Your task to perform on an android device: open app "Spotify: Music and Podcasts" (install if not already installed), go to login, and select forgot password Image 0: 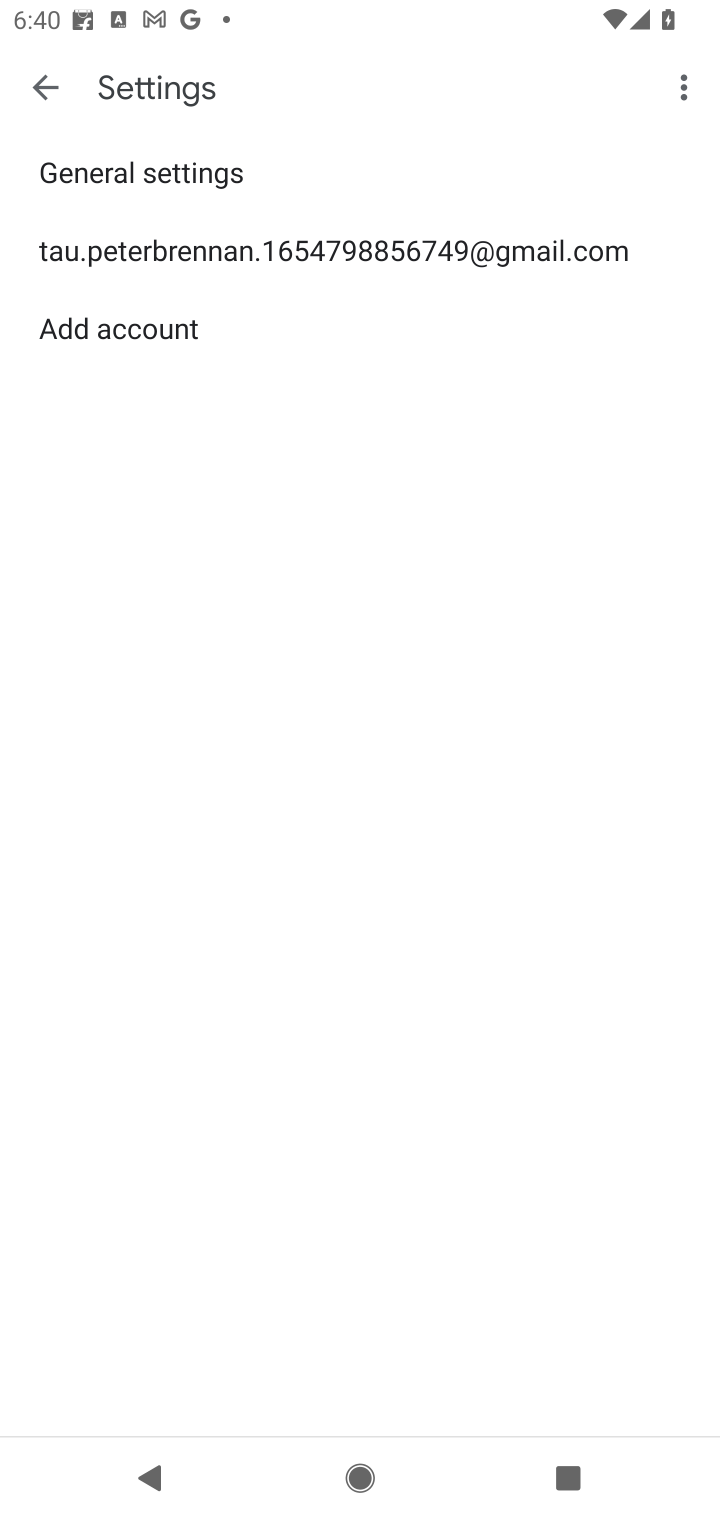
Step 0: press home button
Your task to perform on an android device: open app "Spotify: Music and Podcasts" (install if not already installed), go to login, and select forgot password Image 1: 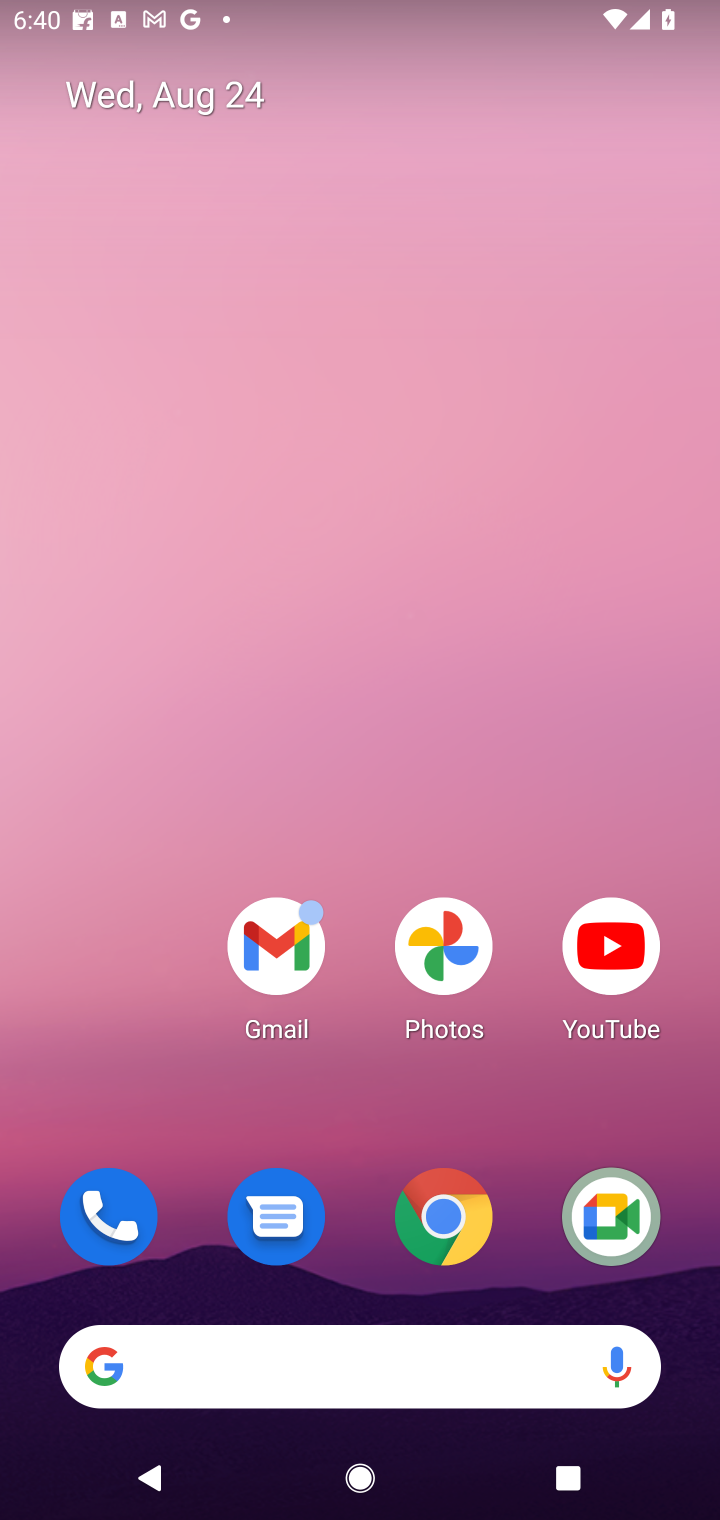
Step 1: drag from (488, 1118) to (535, 194)
Your task to perform on an android device: open app "Spotify: Music and Podcasts" (install if not already installed), go to login, and select forgot password Image 2: 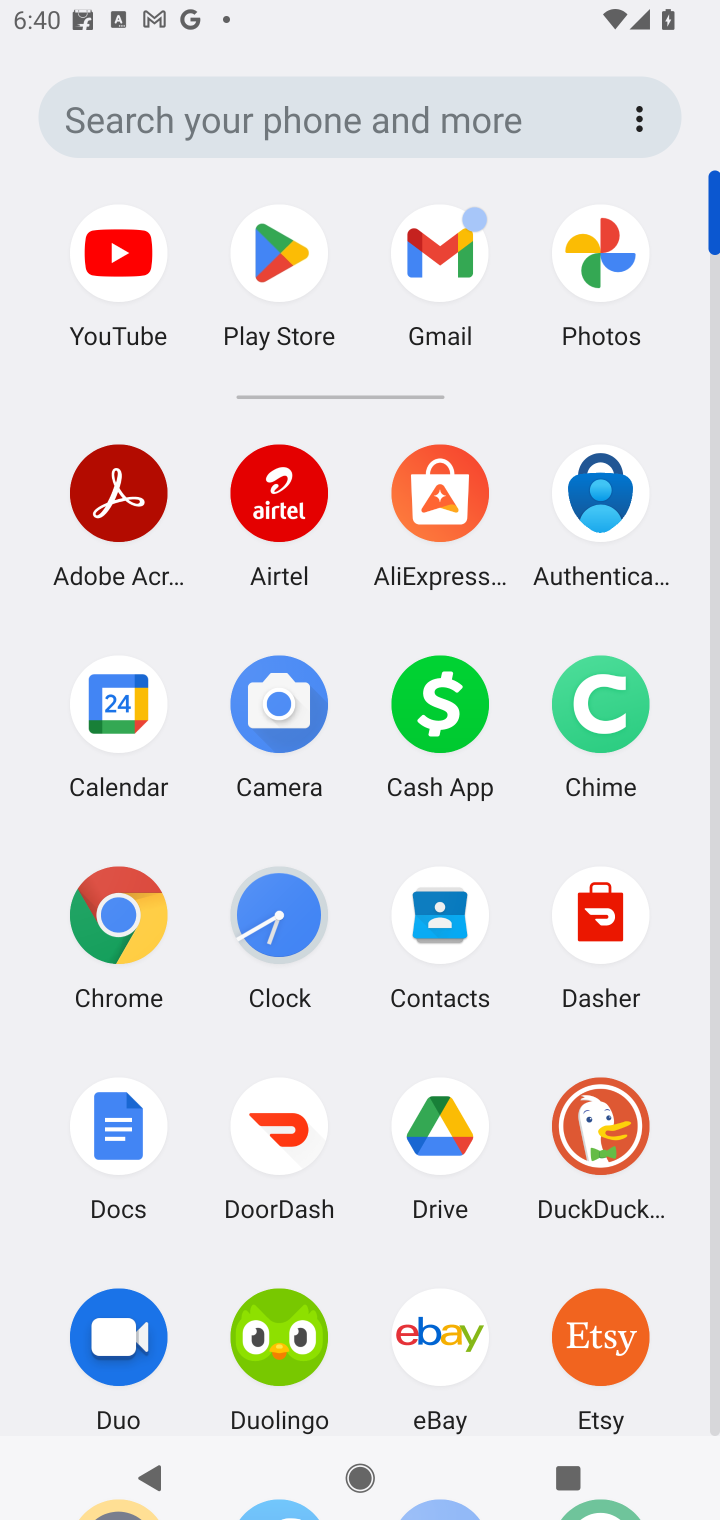
Step 2: click (258, 248)
Your task to perform on an android device: open app "Spotify: Music and Podcasts" (install if not already installed), go to login, and select forgot password Image 3: 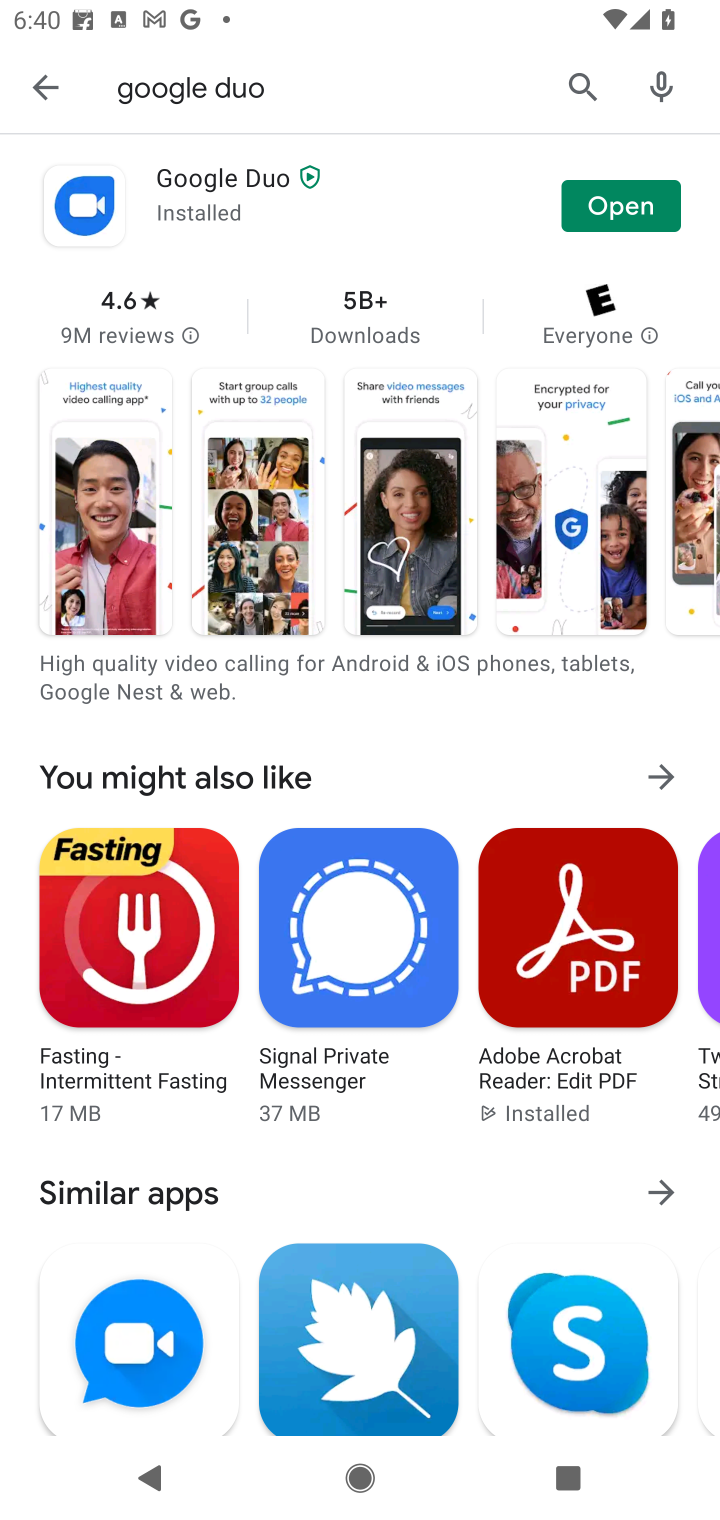
Step 3: click (565, 92)
Your task to perform on an android device: open app "Spotify: Music and Podcasts" (install if not already installed), go to login, and select forgot password Image 4: 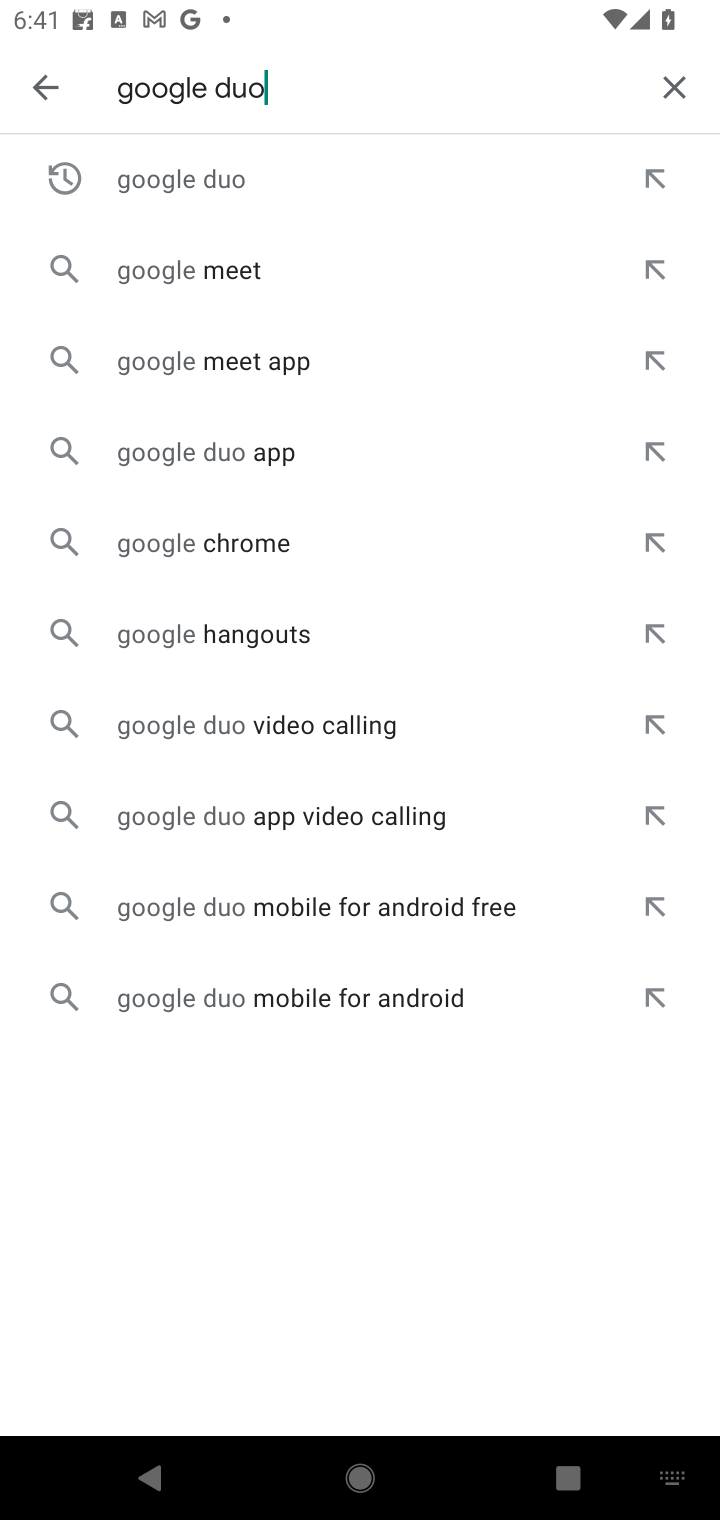
Step 4: click (665, 90)
Your task to perform on an android device: open app "Spotify: Music and Podcasts" (install if not already installed), go to login, and select forgot password Image 5: 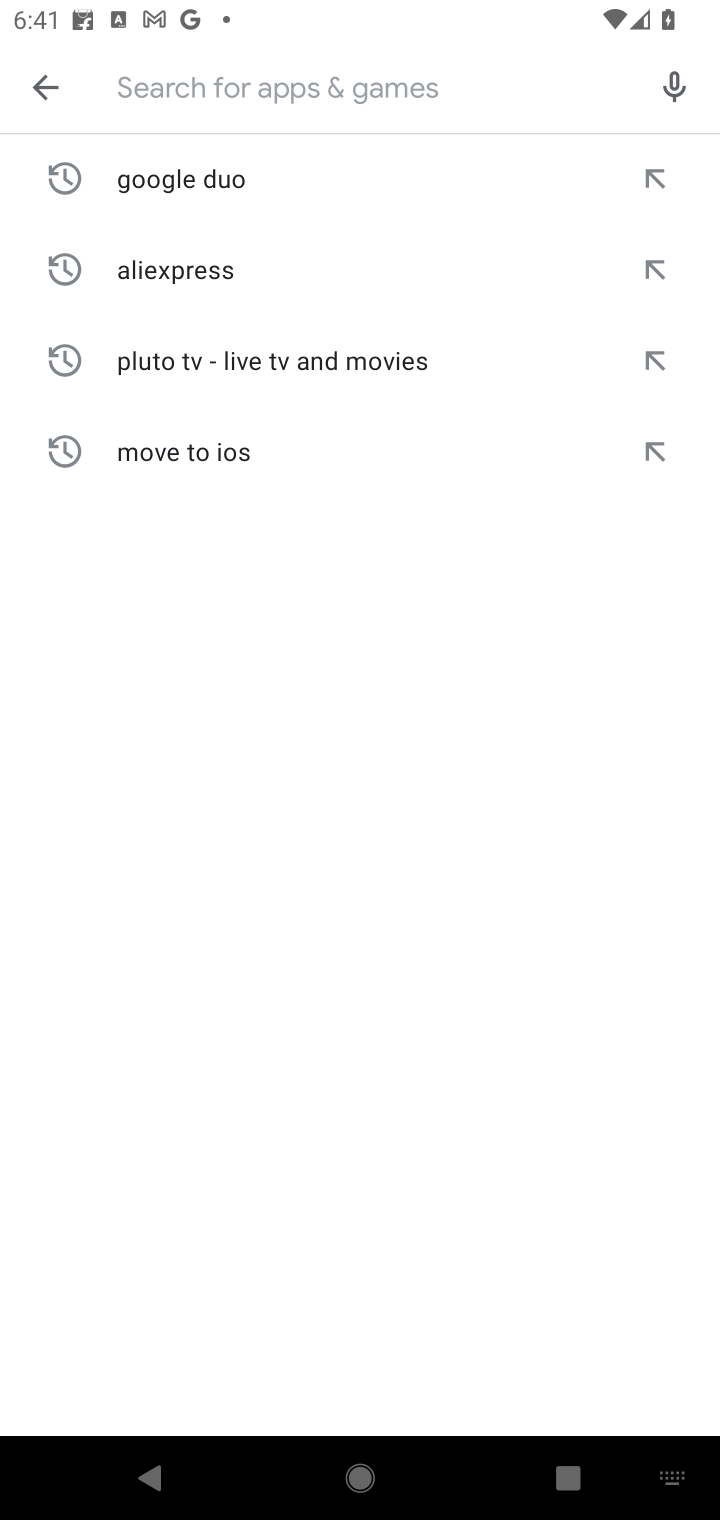
Step 5: type "Spotify: Music and Podcasts"
Your task to perform on an android device: open app "Spotify: Music and Podcasts" (install if not already installed), go to login, and select forgot password Image 6: 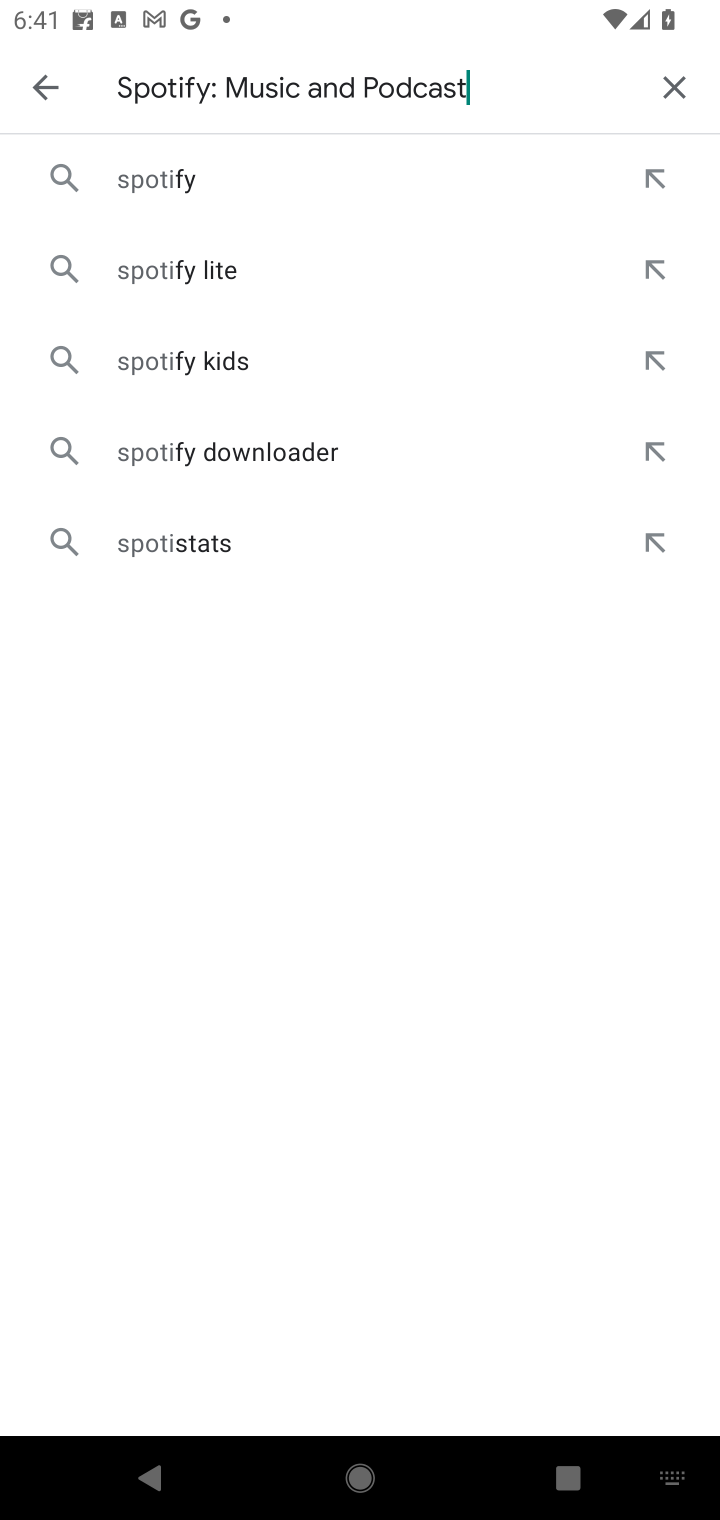
Step 6: type ""
Your task to perform on an android device: open app "Spotify: Music and Podcasts" (install if not already installed), go to login, and select forgot password Image 7: 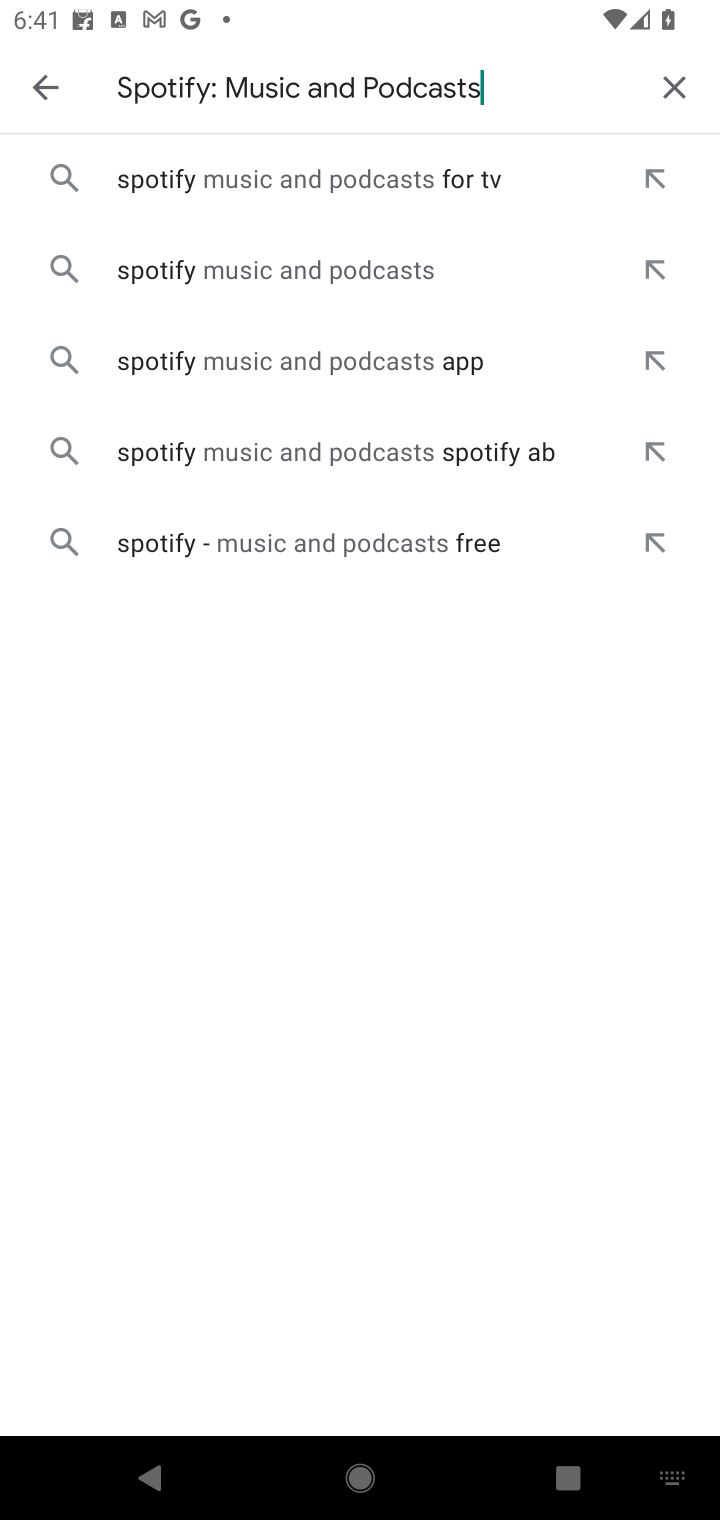
Step 7: click (258, 193)
Your task to perform on an android device: open app "Spotify: Music and Podcasts" (install if not already installed), go to login, and select forgot password Image 8: 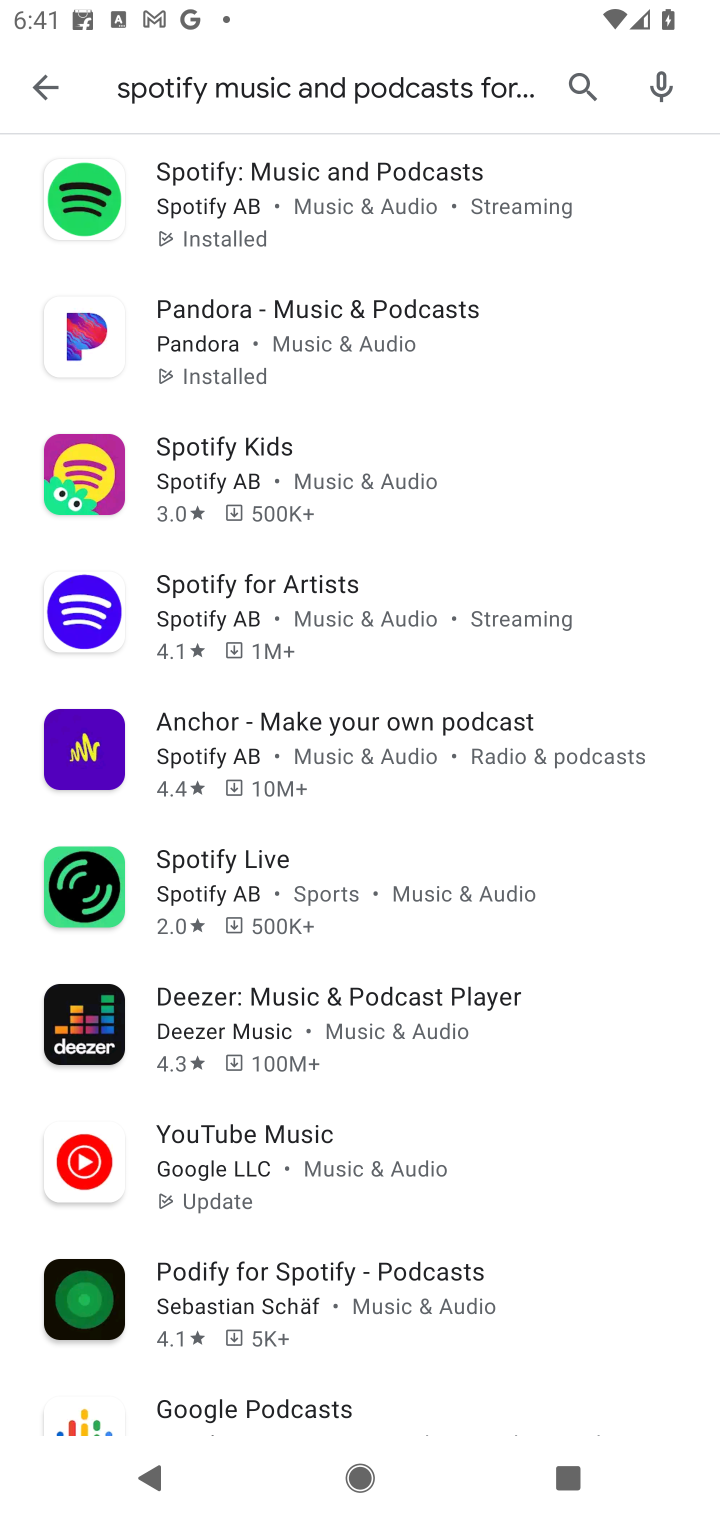
Step 8: click (258, 193)
Your task to perform on an android device: open app "Spotify: Music and Podcasts" (install if not already installed), go to login, and select forgot password Image 9: 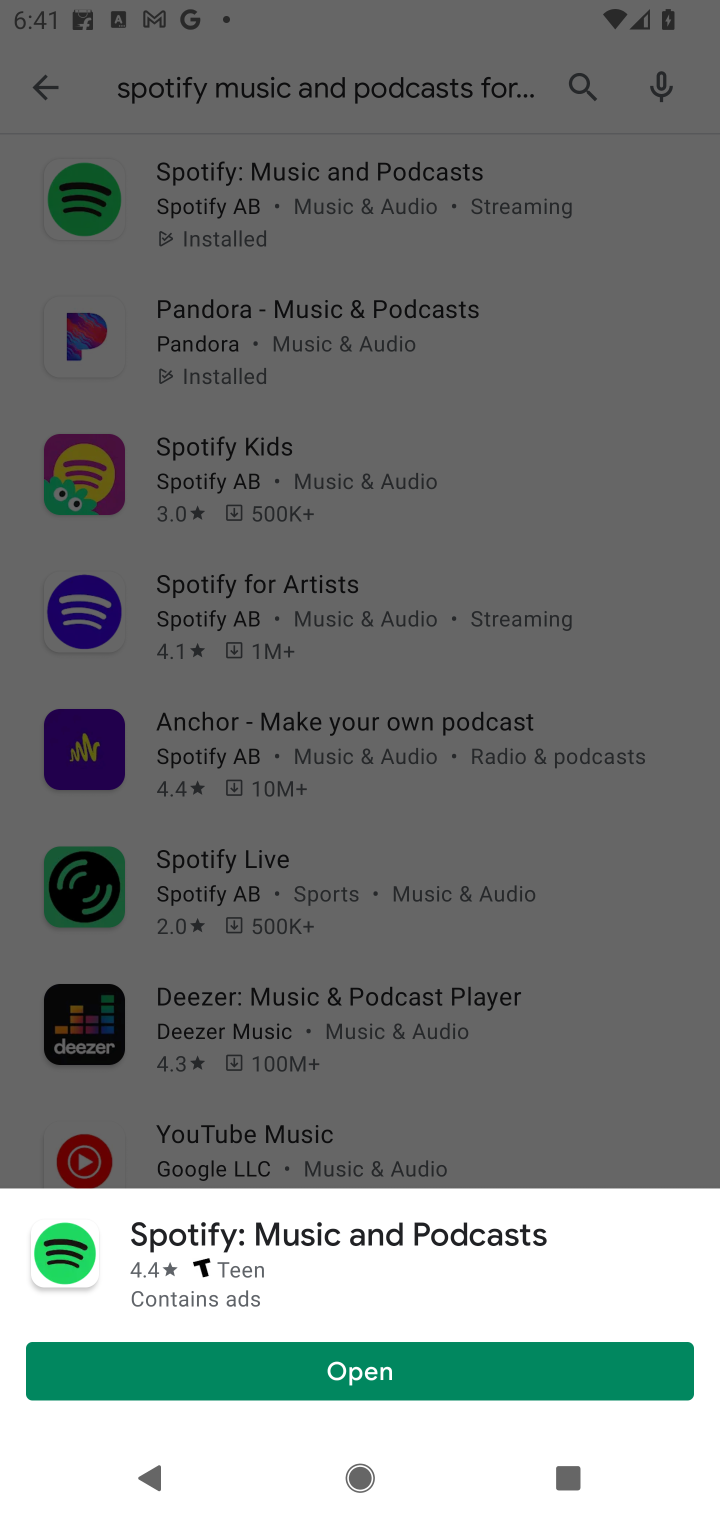
Step 9: click (344, 1371)
Your task to perform on an android device: open app "Spotify: Music and Podcasts" (install if not already installed), go to login, and select forgot password Image 10: 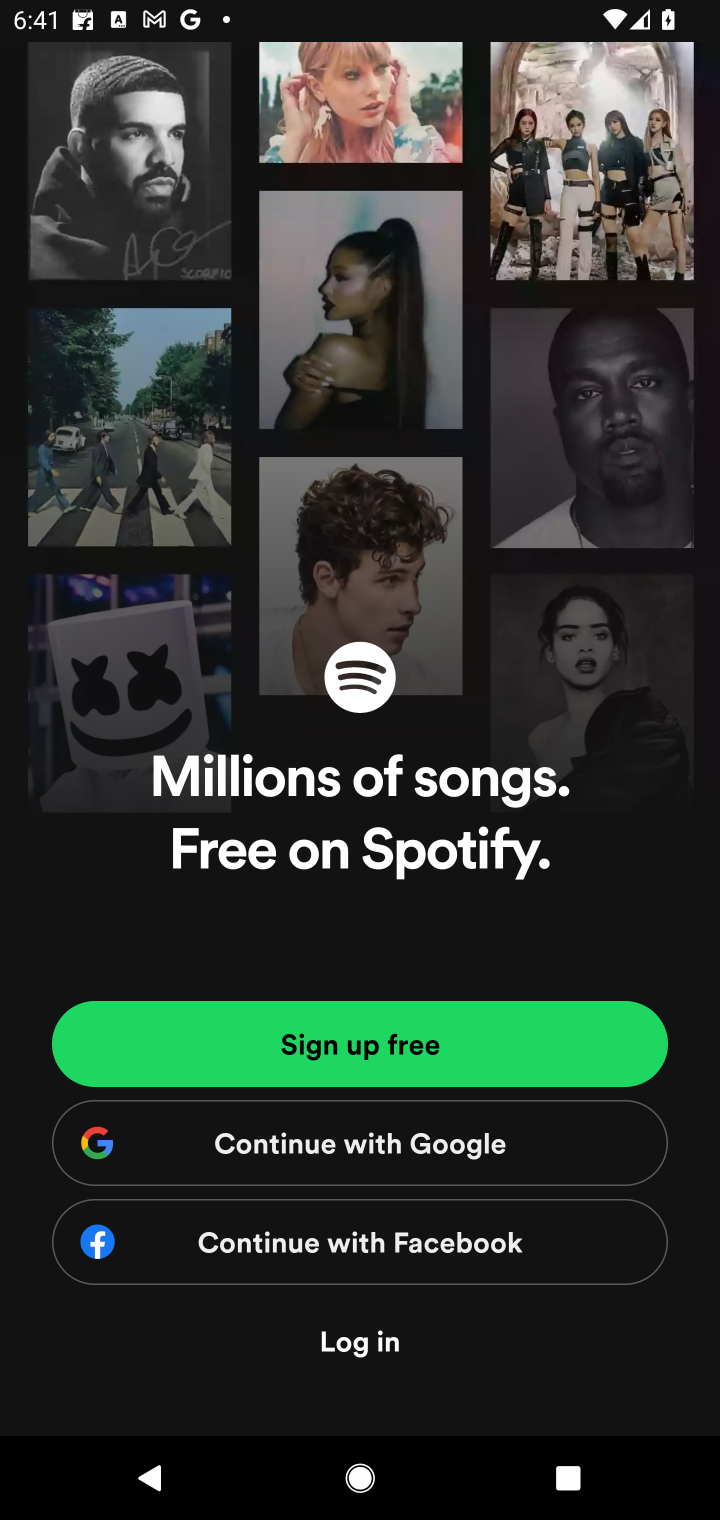
Step 10: task complete